Your task to perform on an android device: Go to Yahoo.com Image 0: 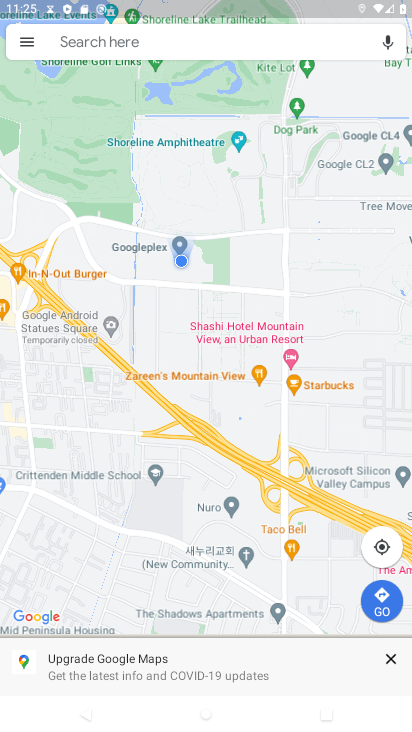
Step 0: press home button
Your task to perform on an android device: Go to Yahoo.com Image 1: 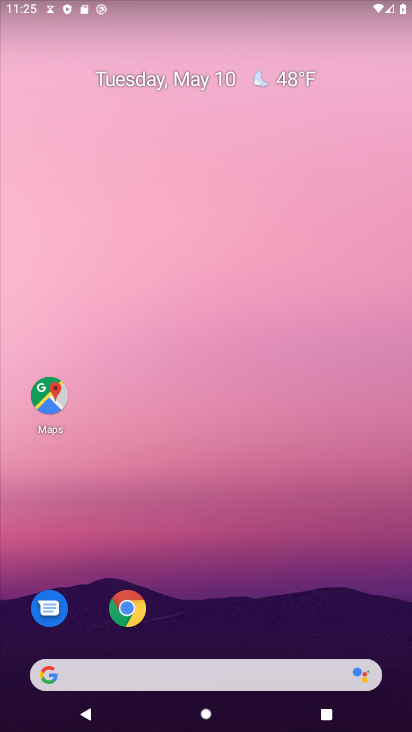
Step 1: click (137, 610)
Your task to perform on an android device: Go to Yahoo.com Image 2: 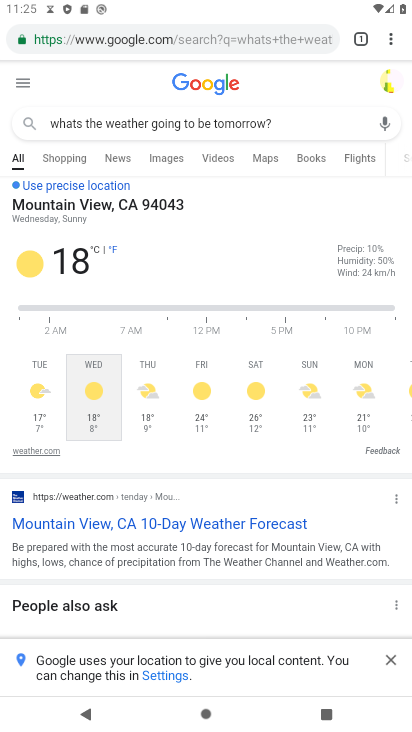
Step 2: click (360, 39)
Your task to perform on an android device: Go to Yahoo.com Image 3: 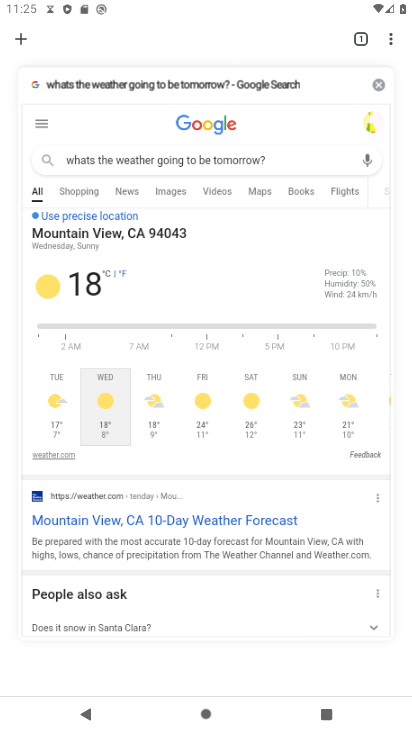
Step 3: click (16, 52)
Your task to perform on an android device: Go to Yahoo.com Image 4: 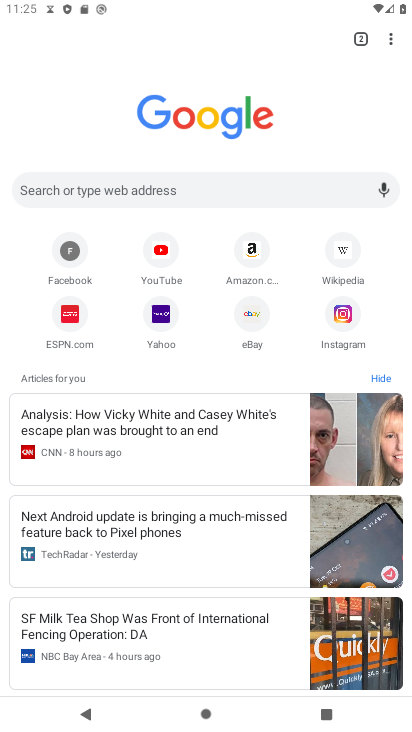
Step 4: click (165, 318)
Your task to perform on an android device: Go to Yahoo.com Image 5: 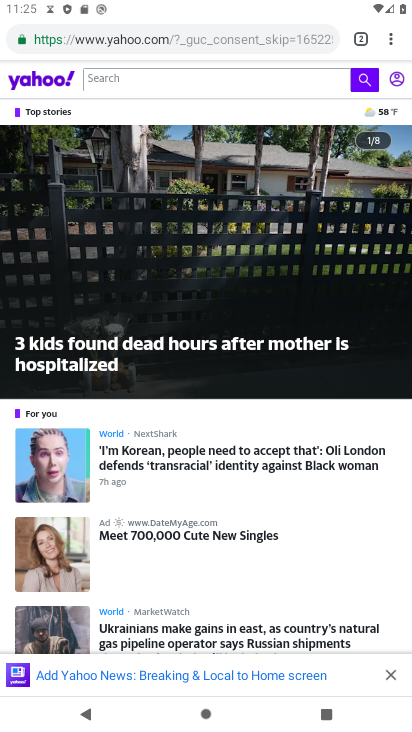
Step 5: task complete